Your task to perform on an android device: turn on the 12-hour format for clock Image 0: 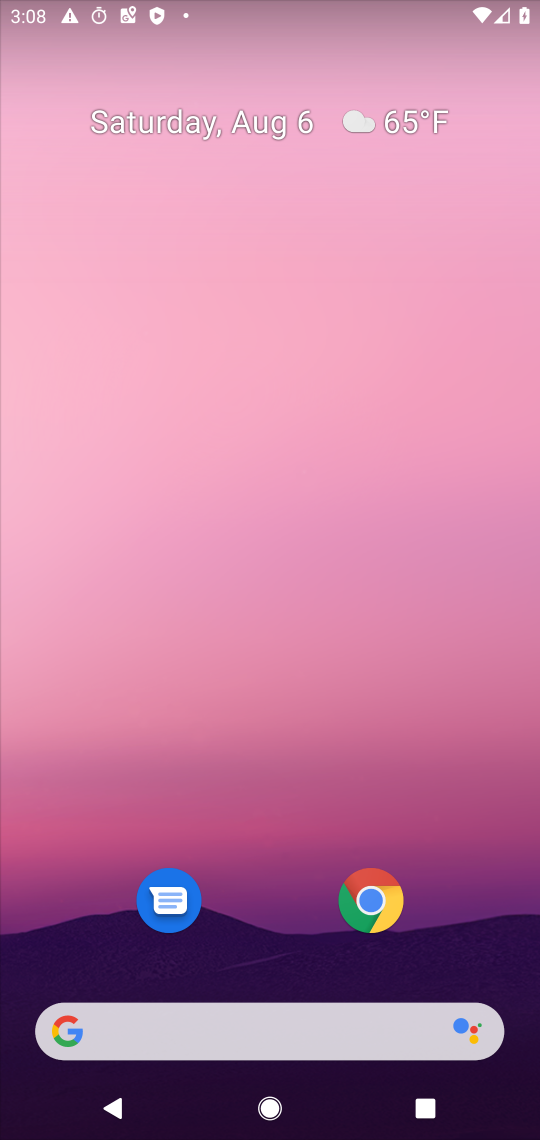
Step 0: press home button
Your task to perform on an android device: turn on the 12-hour format for clock Image 1: 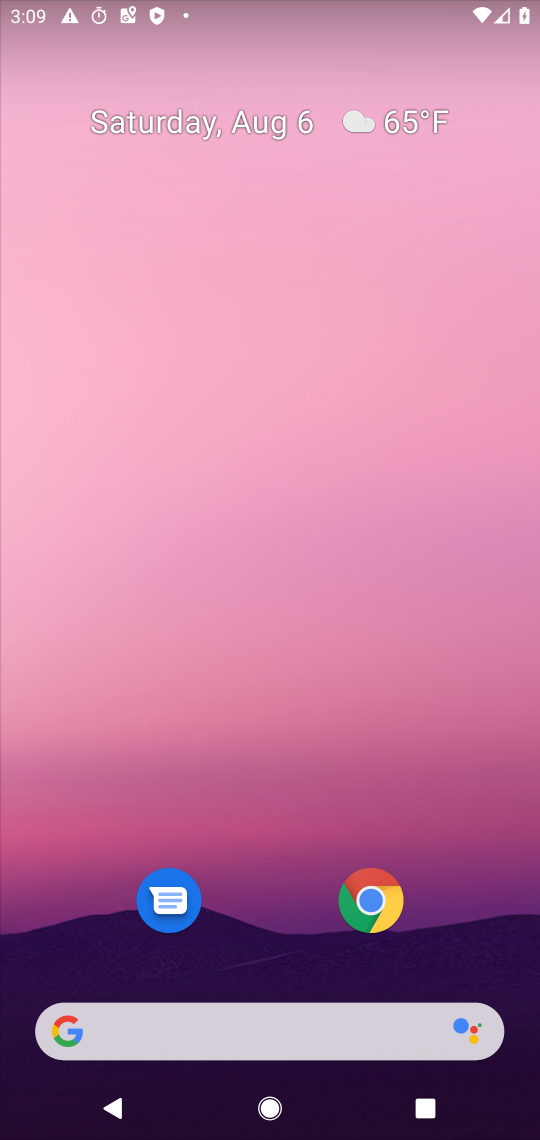
Step 1: press home button
Your task to perform on an android device: turn on the 12-hour format for clock Image 2: 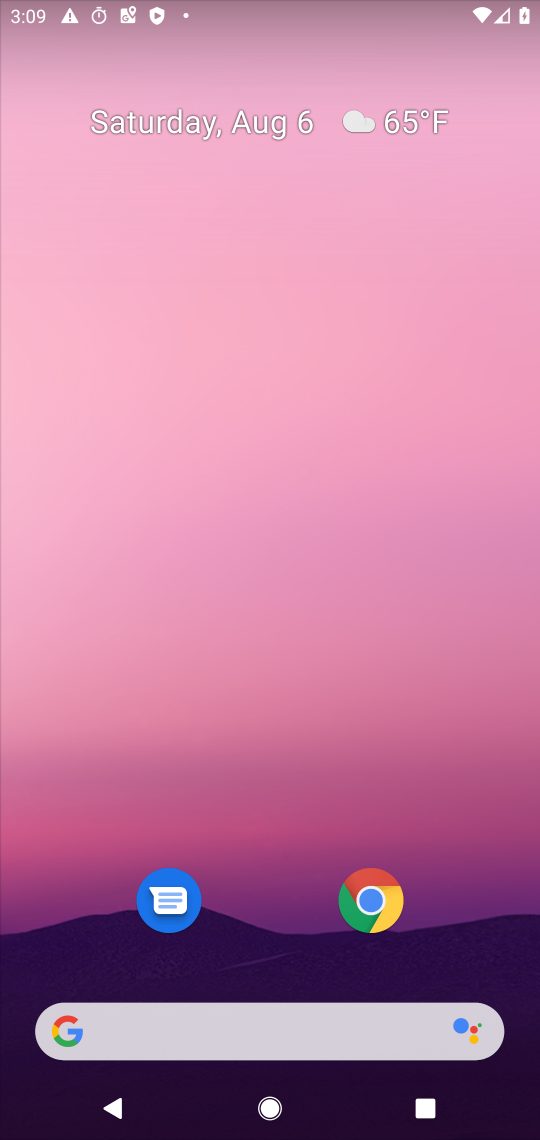
Step 2: drag from (298, 727) to (305, 140)
Your task to perform on an android device: turn on the 12-hour format for clock Image 3: 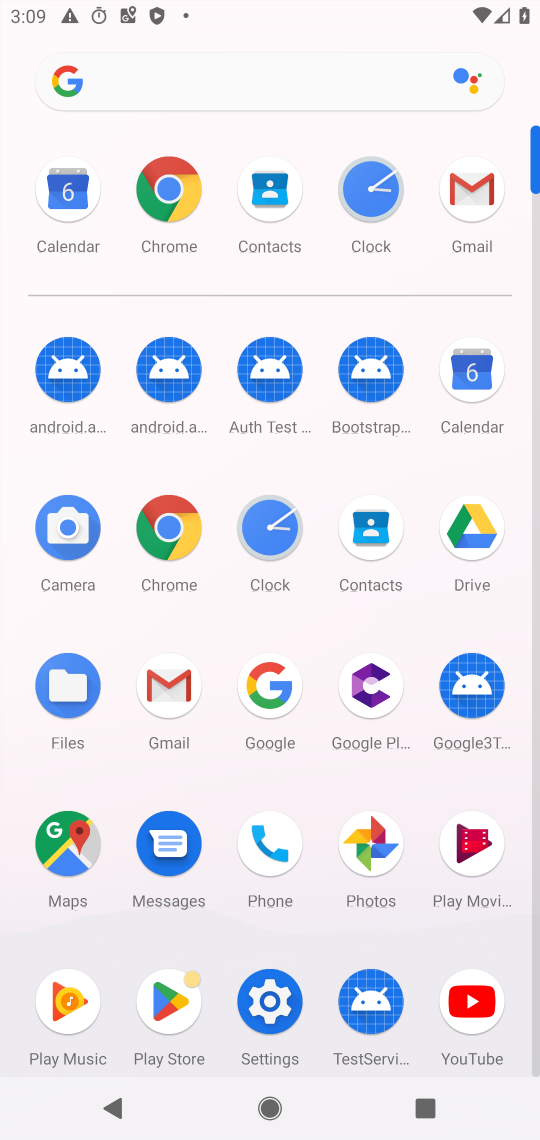
Step 3: click (282, 516)
Your task to perform on an android device: turn on the 12-hour format for clock Image 4: 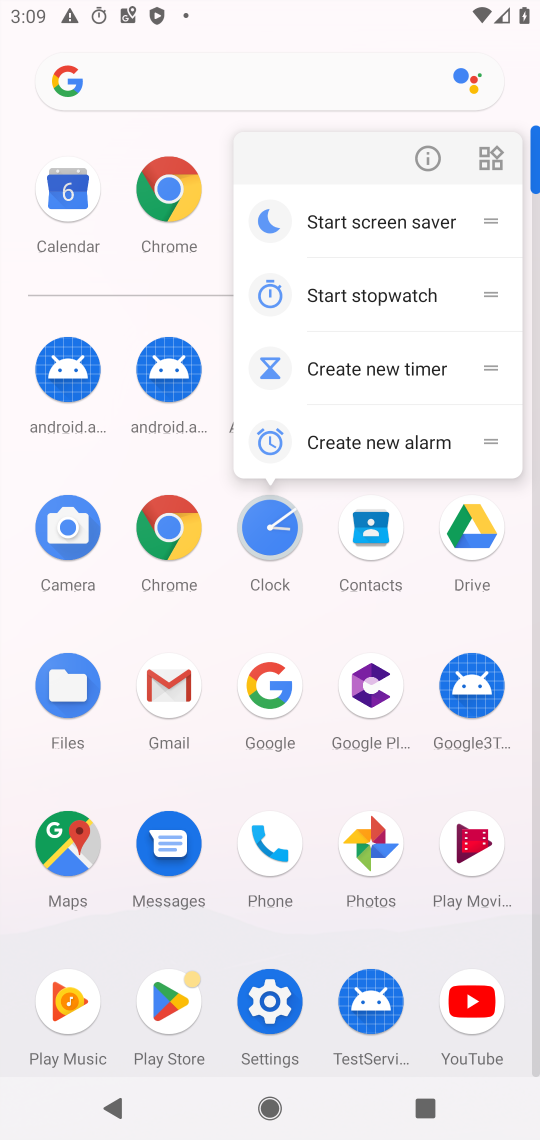
Step 4: click (265, 523)
Your task to perform on an android device: turn on the 12-hour format for clock Image 5: 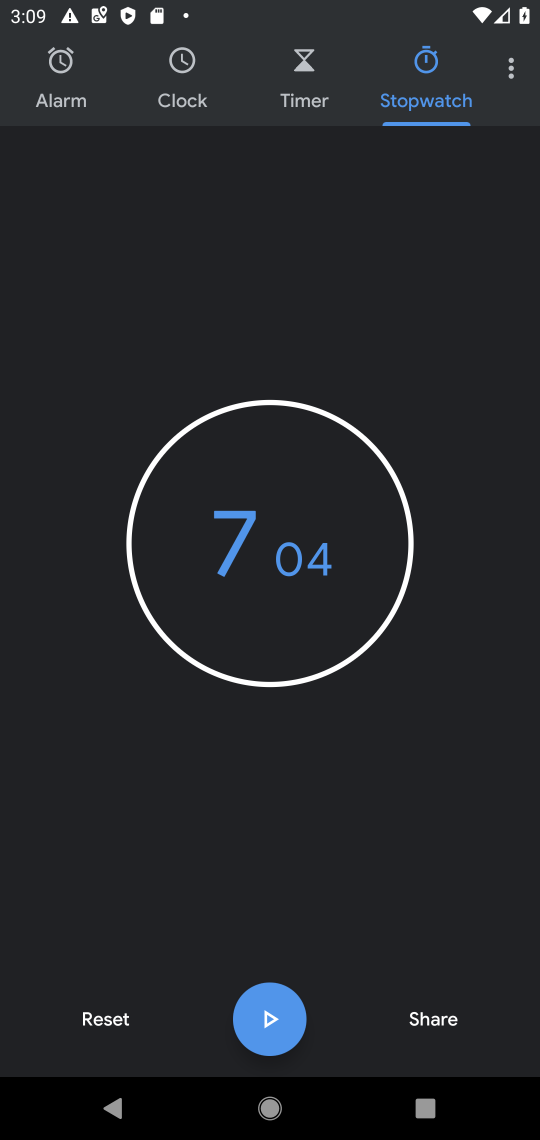
Step 5: click (509, 72)
Your task to perform on an android device: turn on the 12-hour format for clock Image 6: 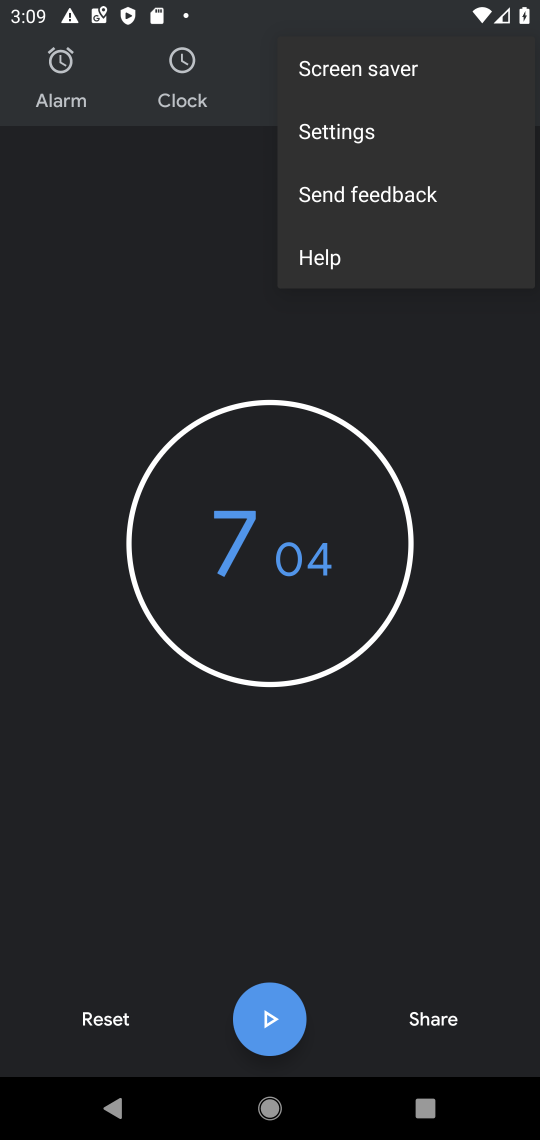
Step 6: click (346, 129)
Your task to perform on an android device: turn on the 12-hour format for clock Image 7: 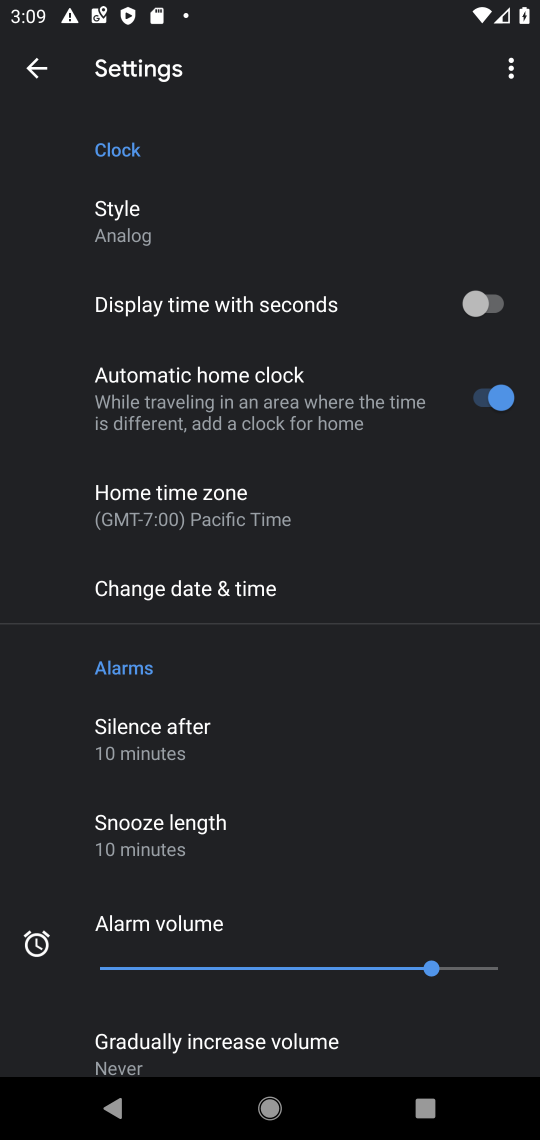
Step 7: drag from (176, 1009) to (164, 580)
Your task to perform on an android device: turn on the 12-hour format for clock Image 8: 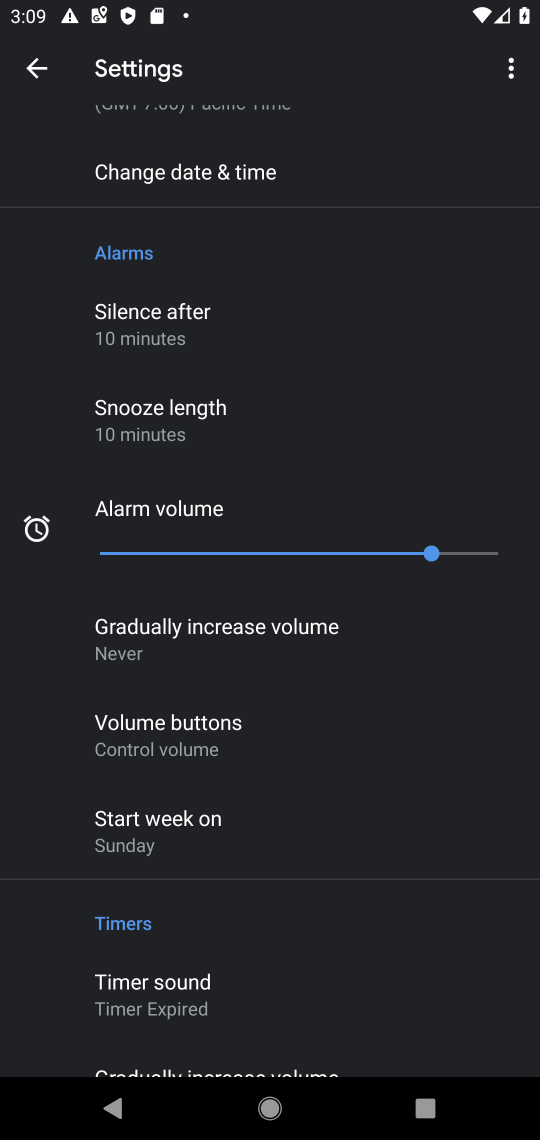
Step 8: click (166, 183)
Your task to perform on an android device: turn on the 12-hour format for clock Image 9: 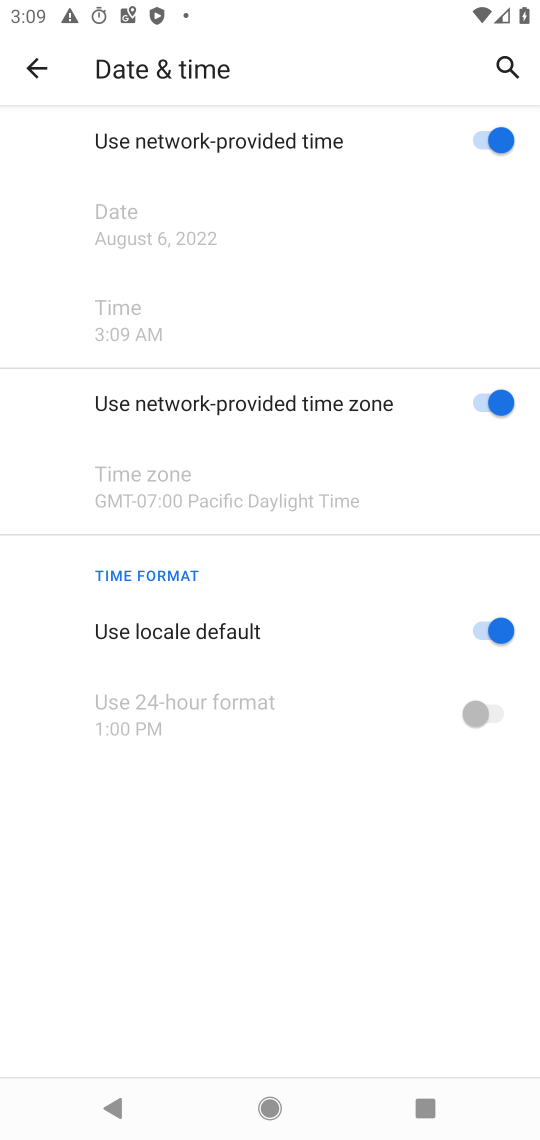
Step 9: task complete